Your task to perform on an android device: Go to sound settings Image 0: 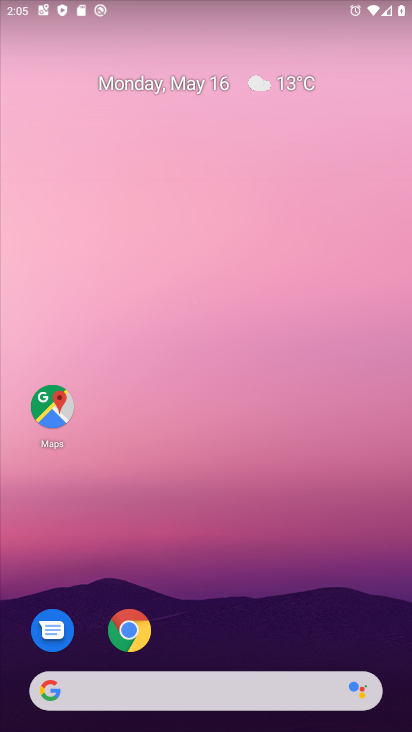
Step 0: drag from (247, 588) to (243, 141)
Your task to perform on an android device: Go to sound settings Image 1: 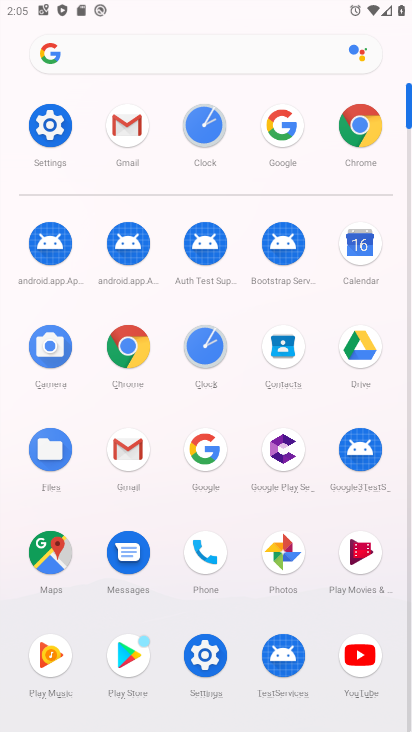
Step 1: click (51, 127)
Your task to perform on an android device: Go to sound settings Image 2: 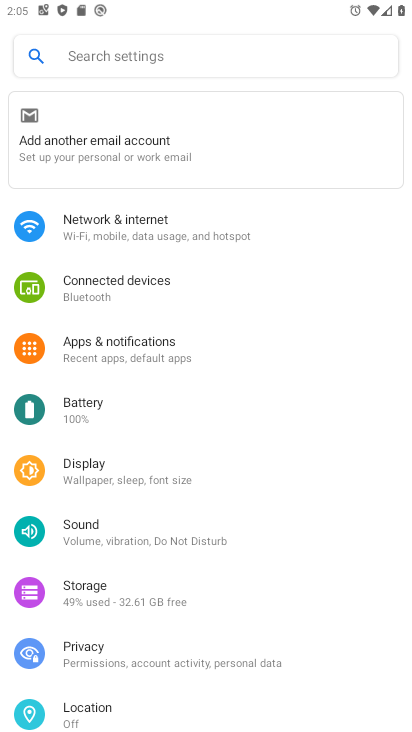
Step 2: click (122, 528)
Your task to perform on an android device: Go to sound settings Image 3: 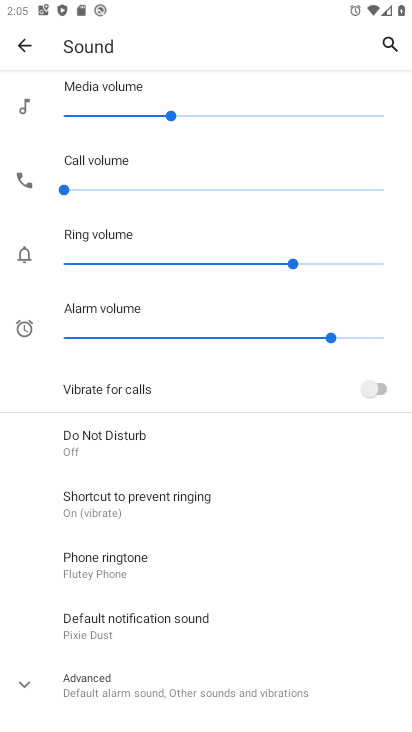
Step 3: click (121, 528)
Your task to perform on an android device: Go to sound settings Image 4: 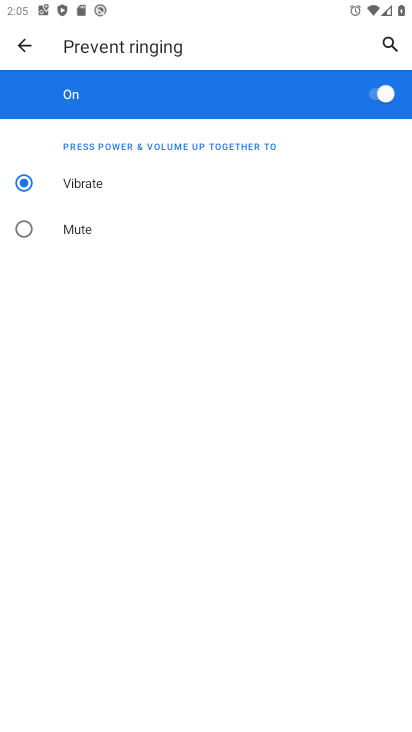
Step 4: task complete